Your task to perform on an android device: Show the shopping cart on walmart.com. Add "acer nitro" to the cart on walmart.com, then select checkout. Image 0: 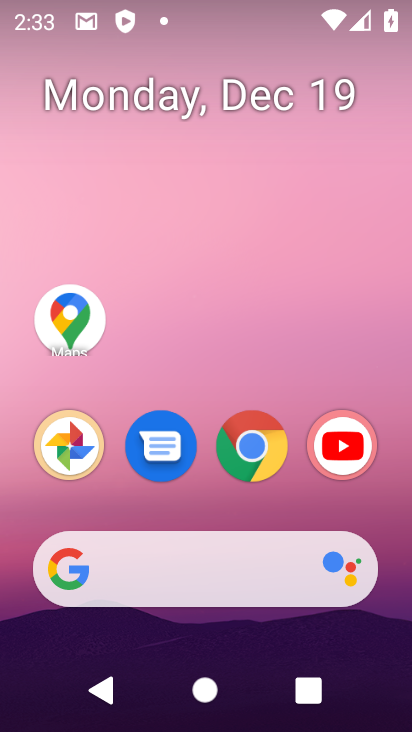
Step 0: task complete